Your task to perform on an android device: Is it going to rain this weekend? Image 0: 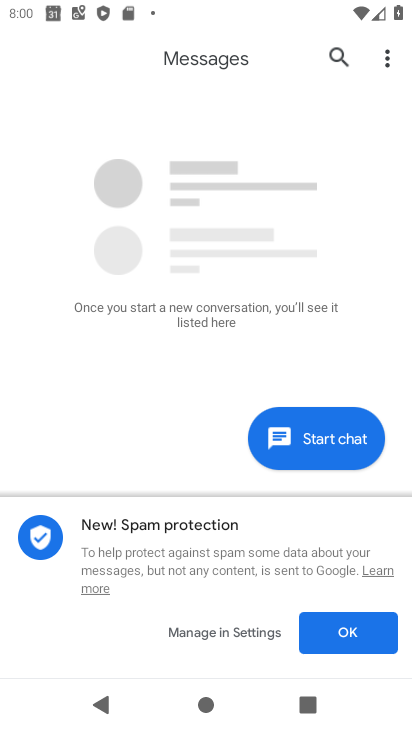
Step 0: press home button
Your task to perform on an android device: Is it going to rain this weekend? Image 1: 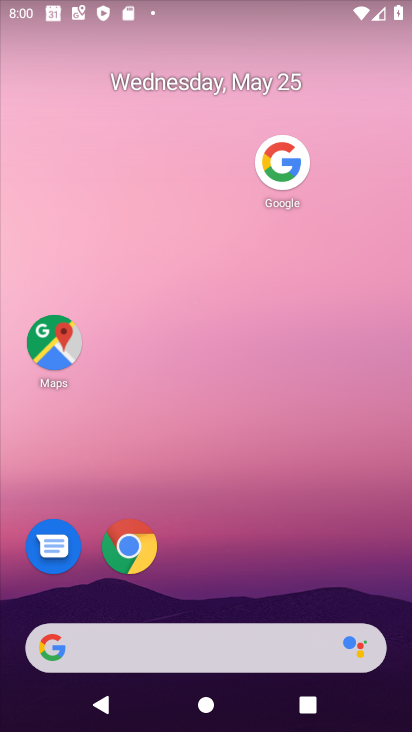
Step 1: click (58, 645)
Your task to perform on an android device: Is it going to rain this weekend? Image 2: 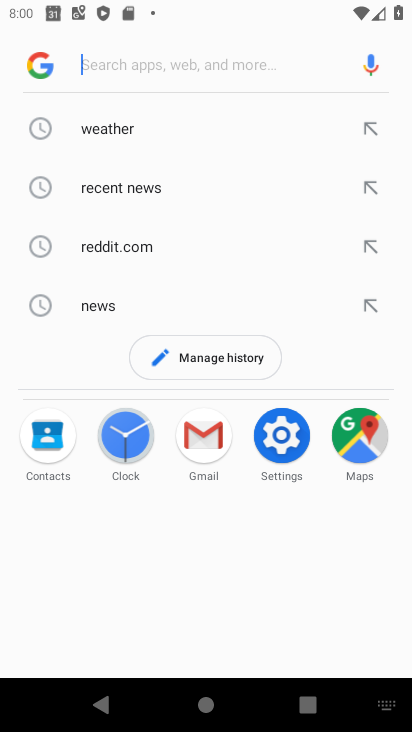
Step 2: click (104, 130)
Your task to perform on an android device: Is it going to rain this weekend? Image 3: 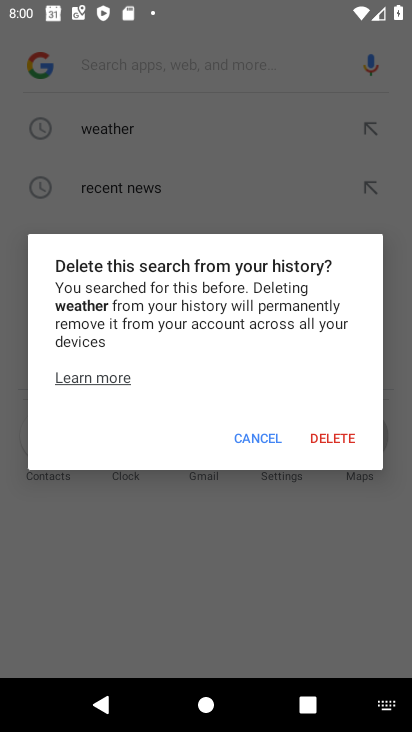
Step 3: click (251, 437)
Your task to perform on an android device: Is it going to rain this weekend? Image 4: 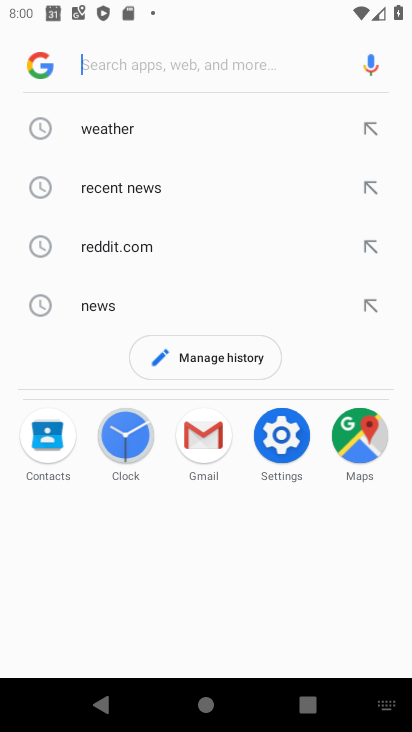
Step 4: click (112, 131)
Your task to perform on an android device: Is it going to rain this weekend? Image 5: 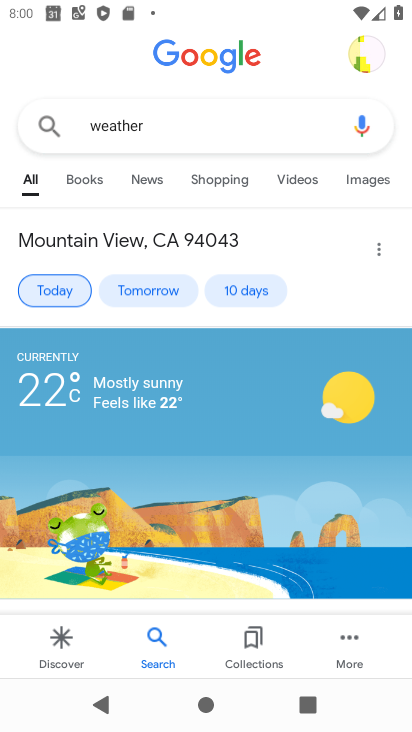
Step 5: click (244, 286)
Your task to perform on an android device: Is it going to rain this weekend? Image 6: 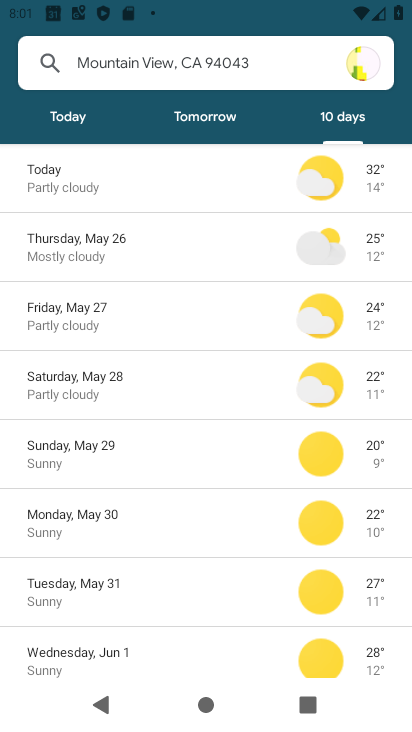
Step 6: click (115, 377)
Your task to perform on an android device: Is it going to rain this weekend? Image 7: 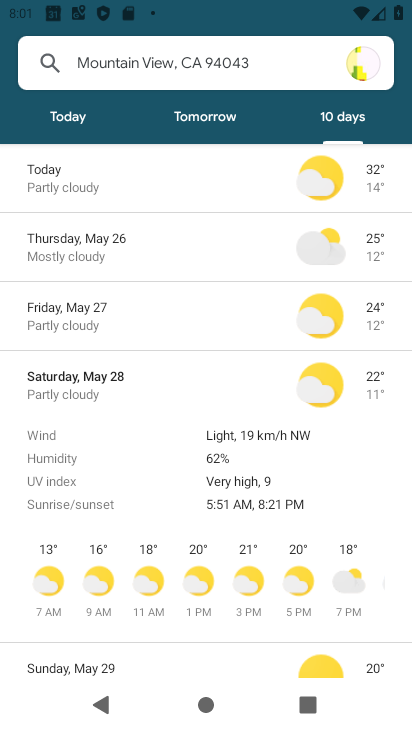
Step 7: task complete